Your task to perform on an android device: check google app version Image 0: 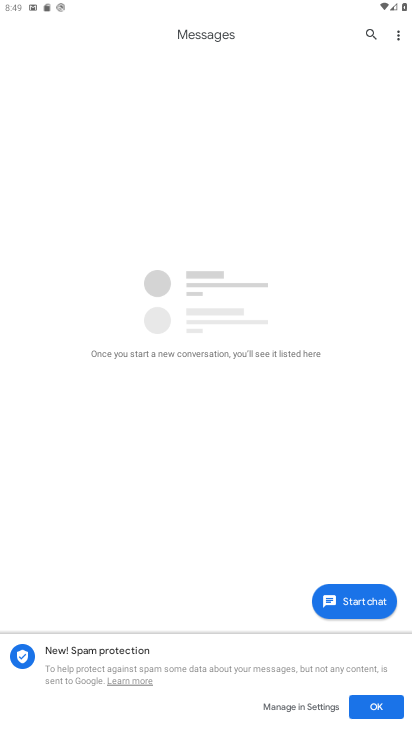
Step 0: press home button
Your task to perform on an android device: check google app version Image 1: 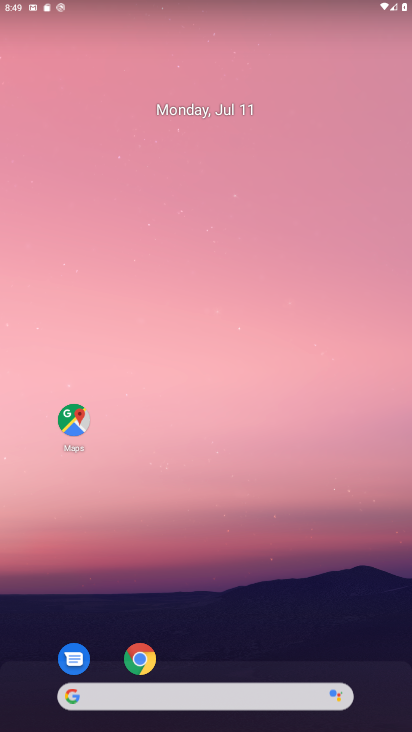
Step 1: drag from (189, 676) to (272, 120)
Your task to perform on an android device: check google app version Image 2: 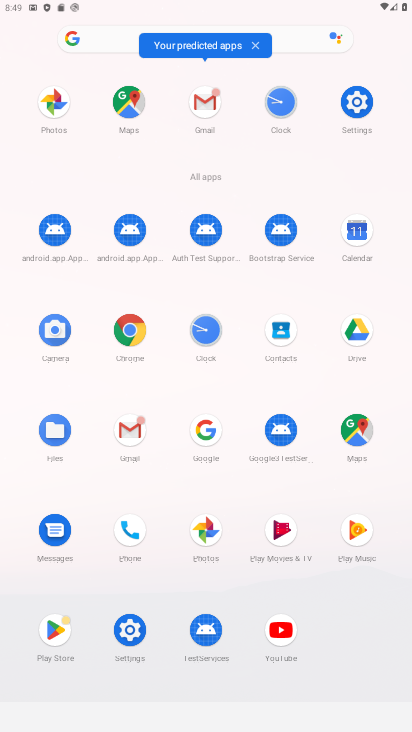
Step 2: click (132, 643)
Your task to perform on an android device: check google app version Image 3: 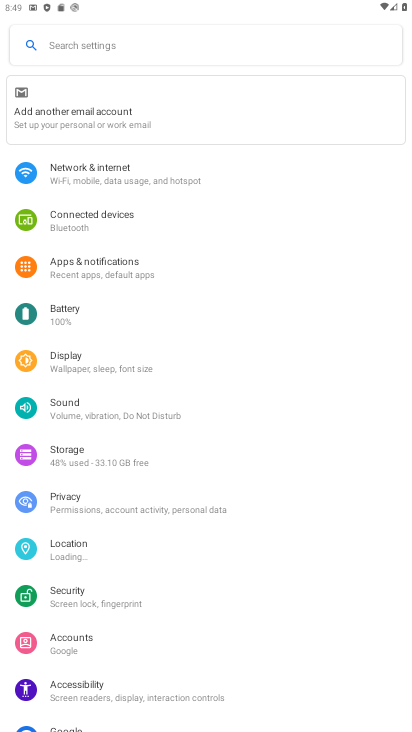
Step 3: click (123, 268)
Your task to perform on an android device: check google app version Image 4: 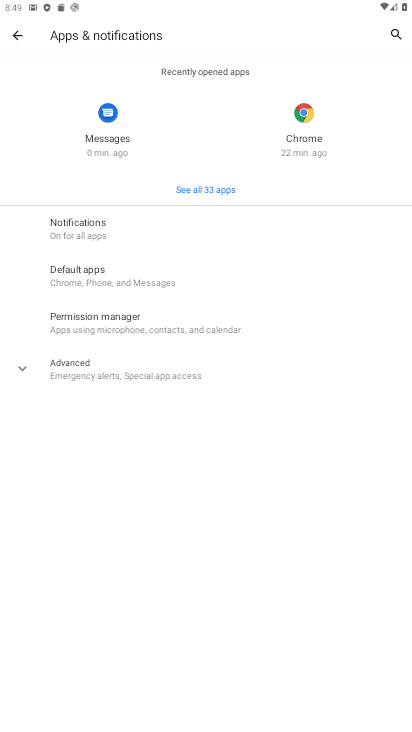
Step 4: click (203, 187)
Your task to perform on an android device: check google app version Image 5: 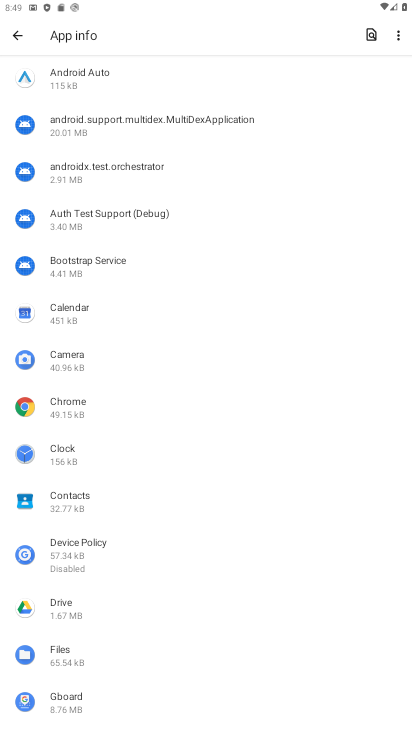
Step 5: drag from (108, 567) to (183, 194)
Your task to perform on an android device: check google app version Image 6: 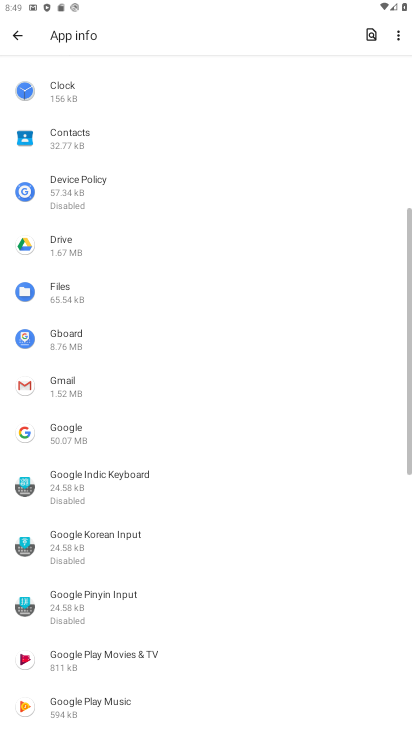
Step 6: click (114, 438)
Your task to perform on an android device: check google app version Image 7: 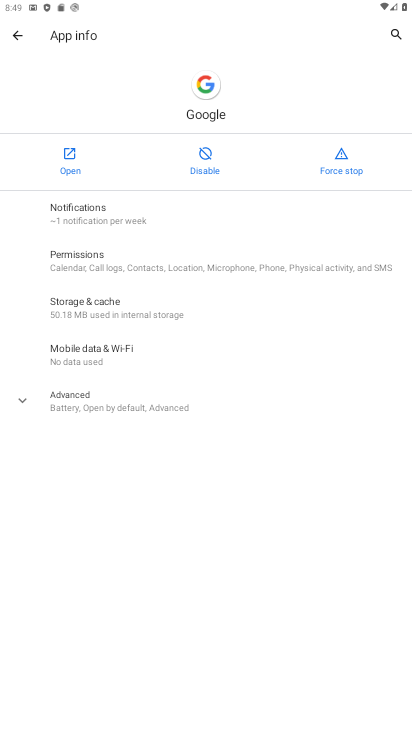
Step 7: click (115, 406)
Your task to perform on an android device: check google app version Image 8: 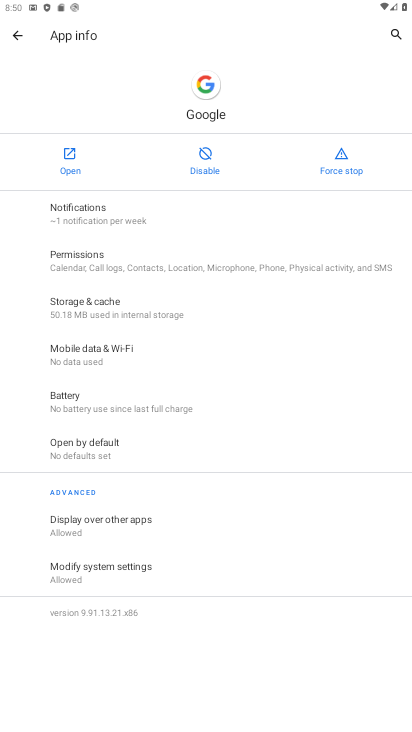
Step 8: task complete